Your task to perform on an android device: find photos in the google photos app Image 0: 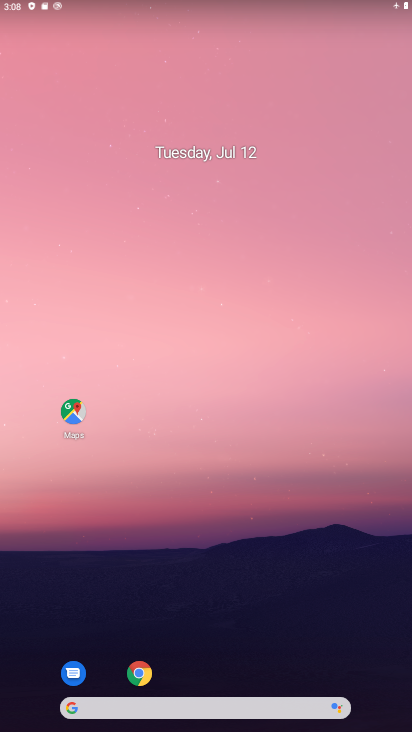
Step 0: drag from (192, 702) to (161, 9)
Your task to perform on an android device: find photos in the google photos app Image 1: 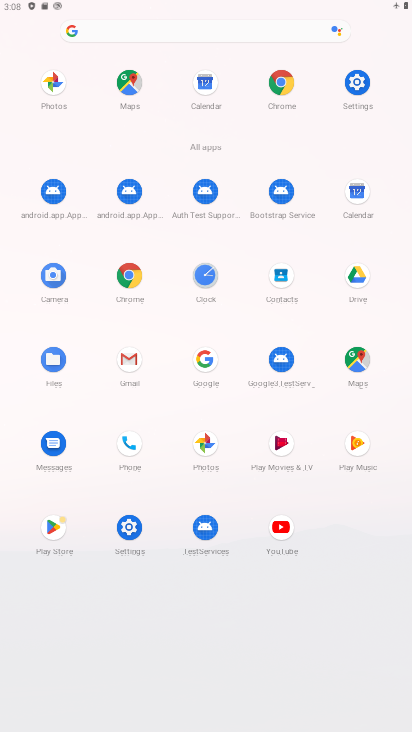
Step 1: click (55, 84)
Your task to perform on an android device: find photos in the google photos app Image 2: 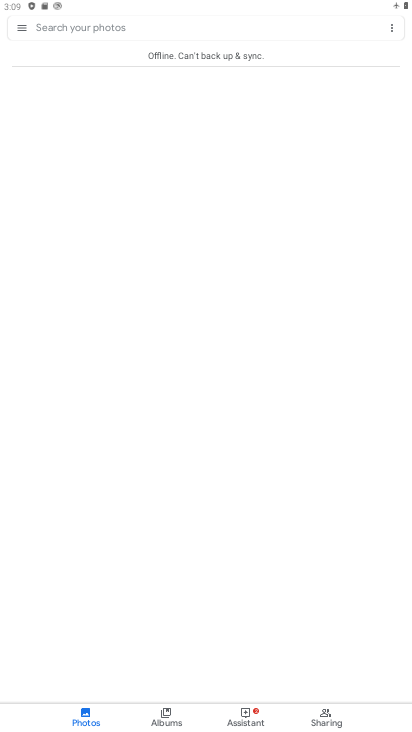
Step 2: click (17, 30)
Your task to perform on an android device: find photos in the google photos app Image 3: 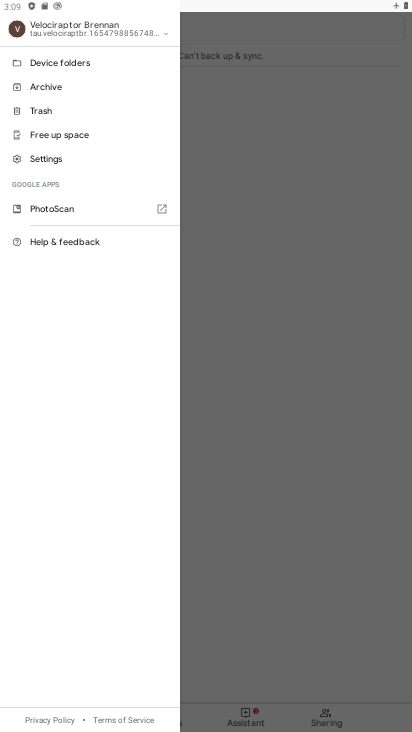
Step 3: click (224, 261)
Your task to perform on an android device: find photos in the google photos app Image 4: 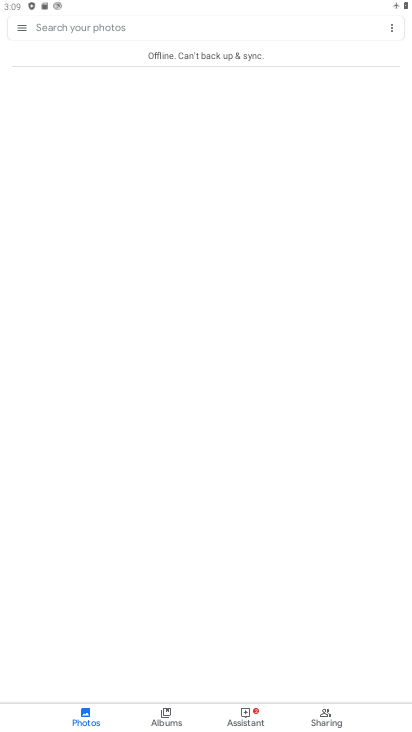
Step 4: click (233, 716)
Your task to perform on an android device: find photos in the google photos app Image 5: 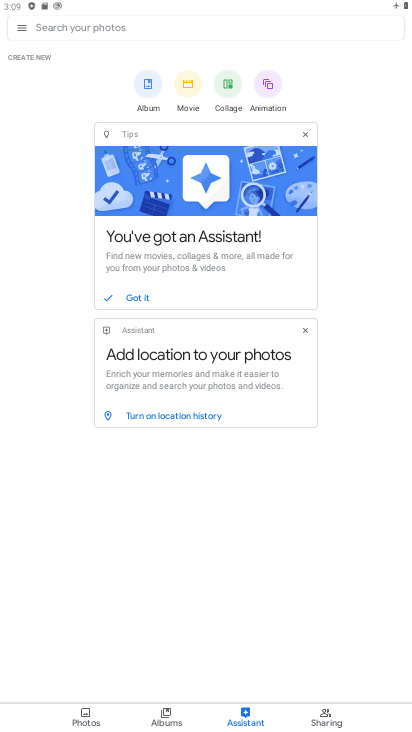
Step 5: click (162, 716)
Your task to perform on an android device: find photos in the google photos app Image 6: 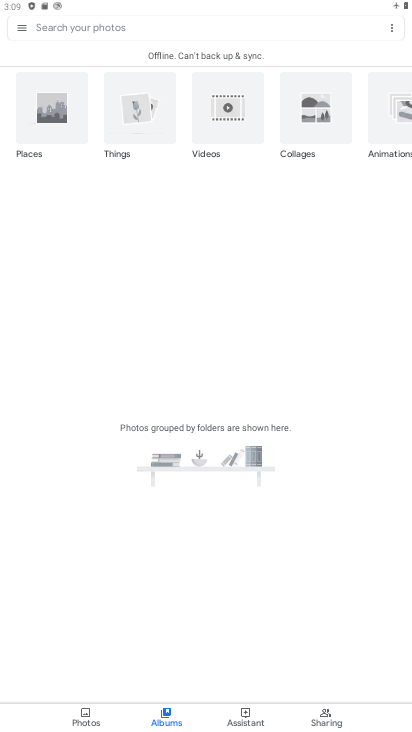
Step 6: drag from (379, 148) to (224, 147)
Your task to perform on an android device: find photos in the google photos app Image 7: 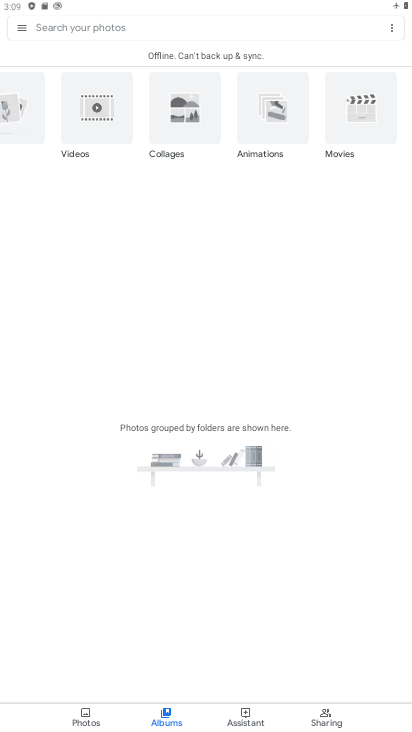
Step 7: drag from (369, 132) to (166, 130)
Your task to perform on an android device: find photos in the google photos app Image 8: 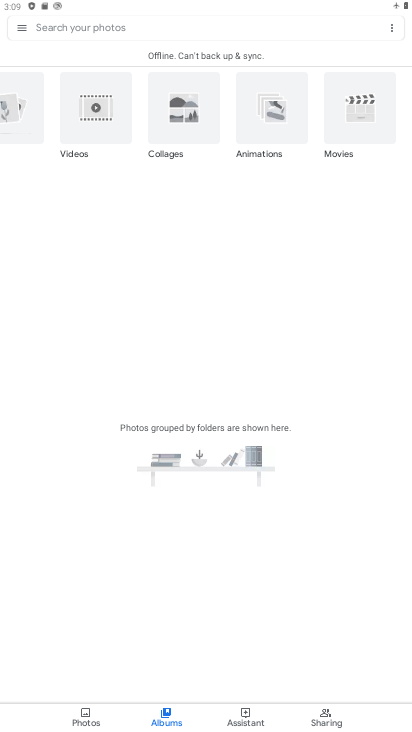
Step 8: click (82, 709)
Your task to perform on an android device: find photos in the google photos app Image 9: 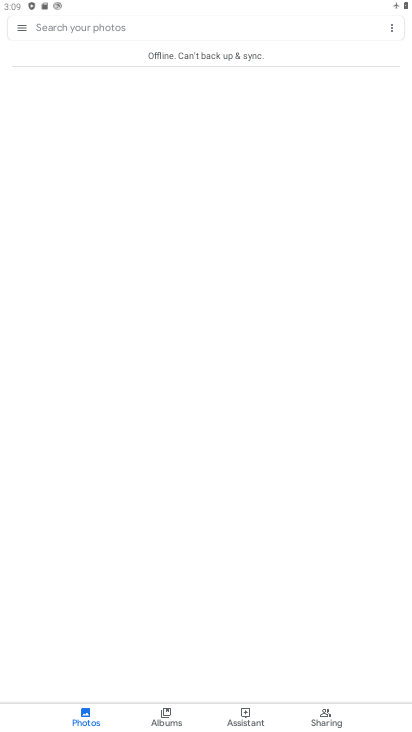
Step 9: click (241, 718)
Your task to perform on an android device: find photos in the google photos app Image 10: 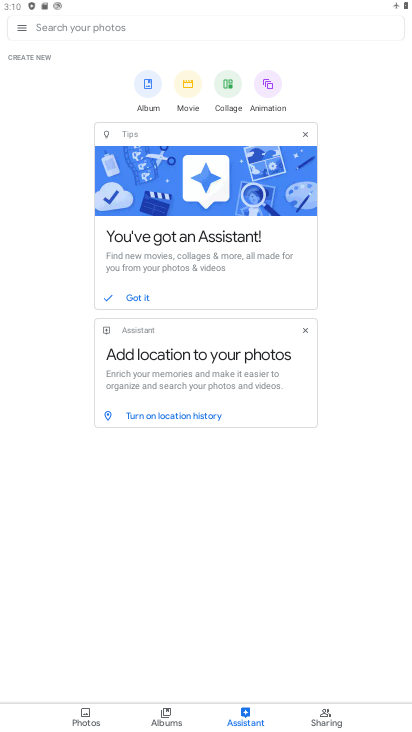
Step 10: click (319, 718)
Your task to perform on an android device: find photos in the google photos app Image 11: 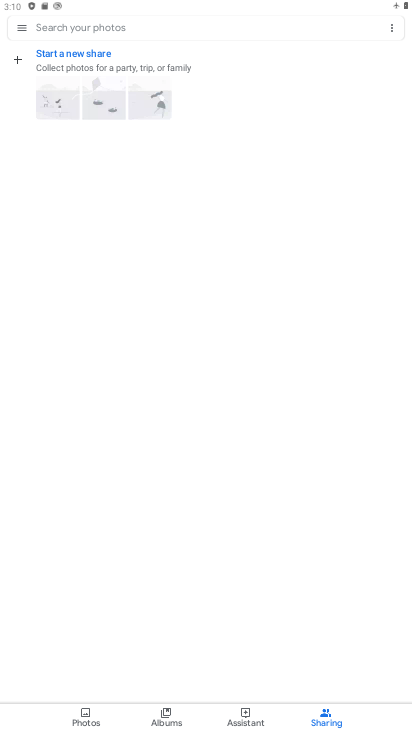
Step 11: click (56, 106)
Your task to perform on an android device: find photos in the google photos app Image 12: 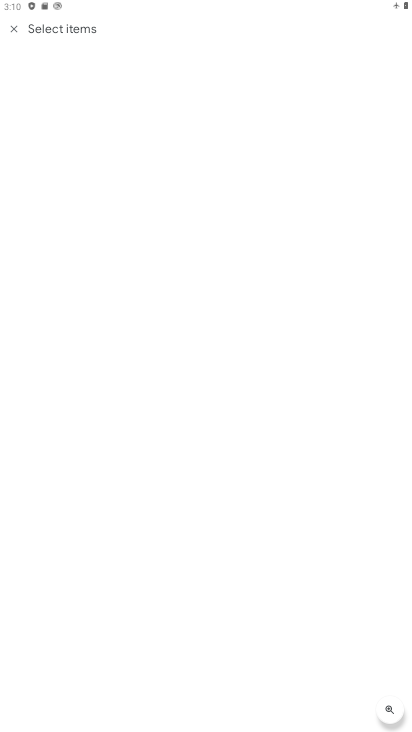
Step 12: press back button
Your task to perform on an android device: find photos in the google photos app Image 13: 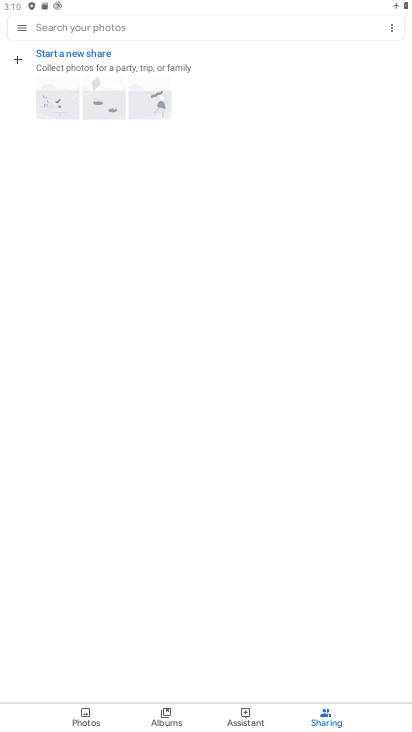
Step 13: press back button
Your task to perform on an android device: find photos in the google photos app Image 14: 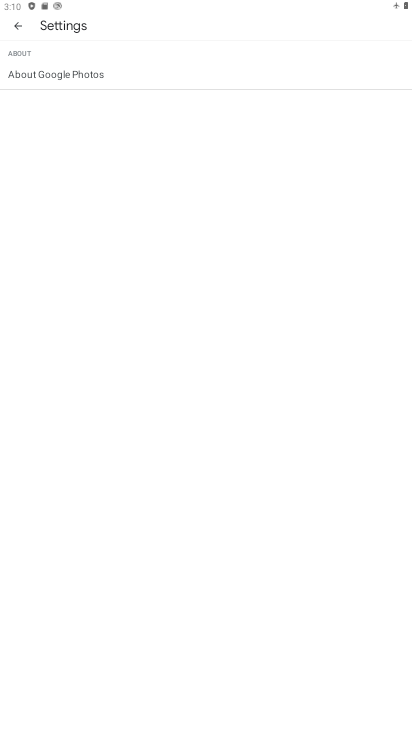
Step 14: press back button
Your task to perform on an android device: find photos in the google photos app Image 15: 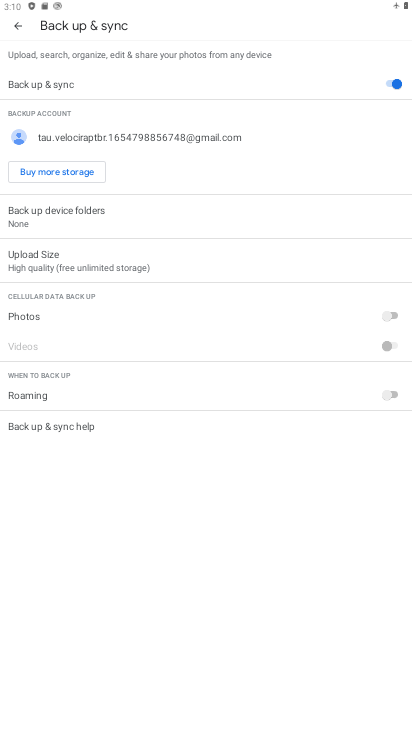
Step 15: press back button
Your task to perform on an android device: find photos in the google photos app Image 16: 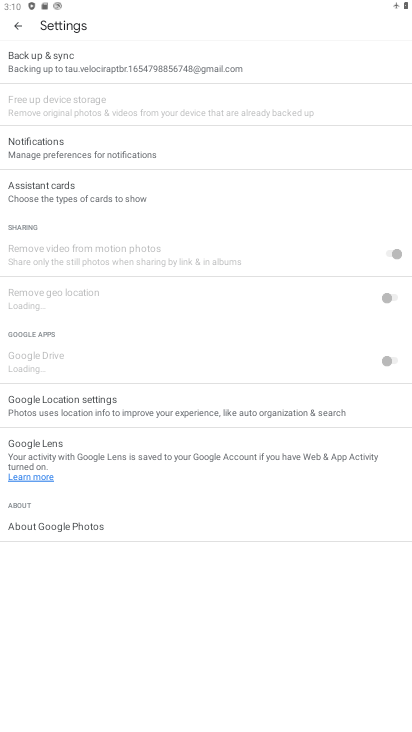
Step 16: press back button
Your task to perform on an android device: find photos in the google photos app Image 17: 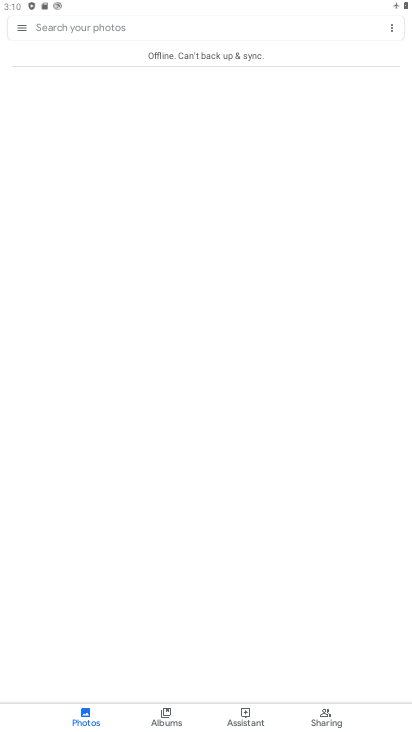
Step 17: click (251, 719)
Your task to perform on an android device: find photos in the google photos app Image 18: 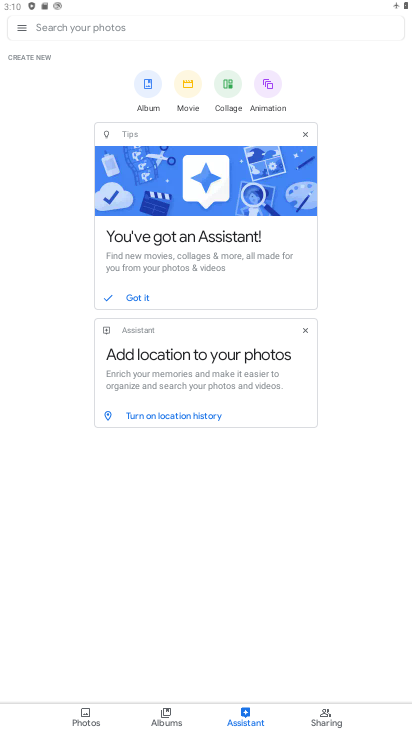
Step 18: click (174, 714)
Your task to perform on an android device: find photos in the google photos app Image 19: 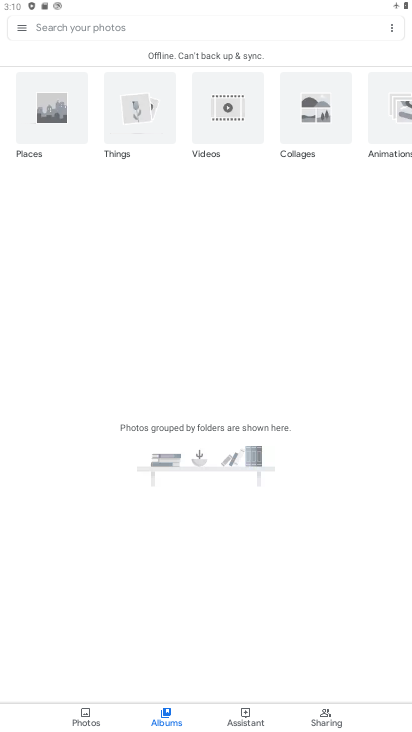
Step 19: click (209, 53)
Your task to perform on an android device: find photos in the google photos app Image 20: 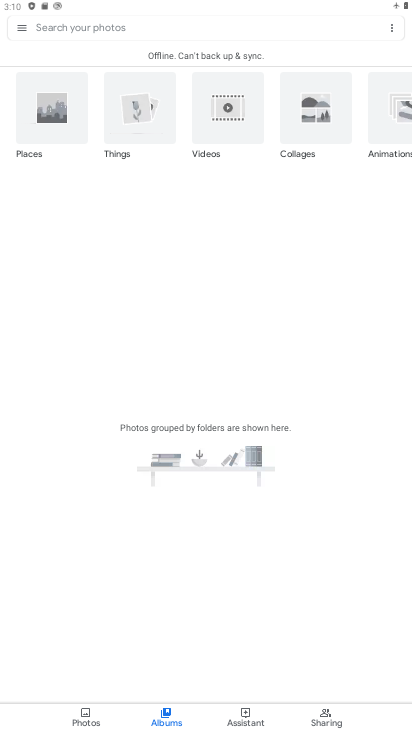
Step 20: task complete